Your task to perform on an android device: turn on airplane mode Image 0: 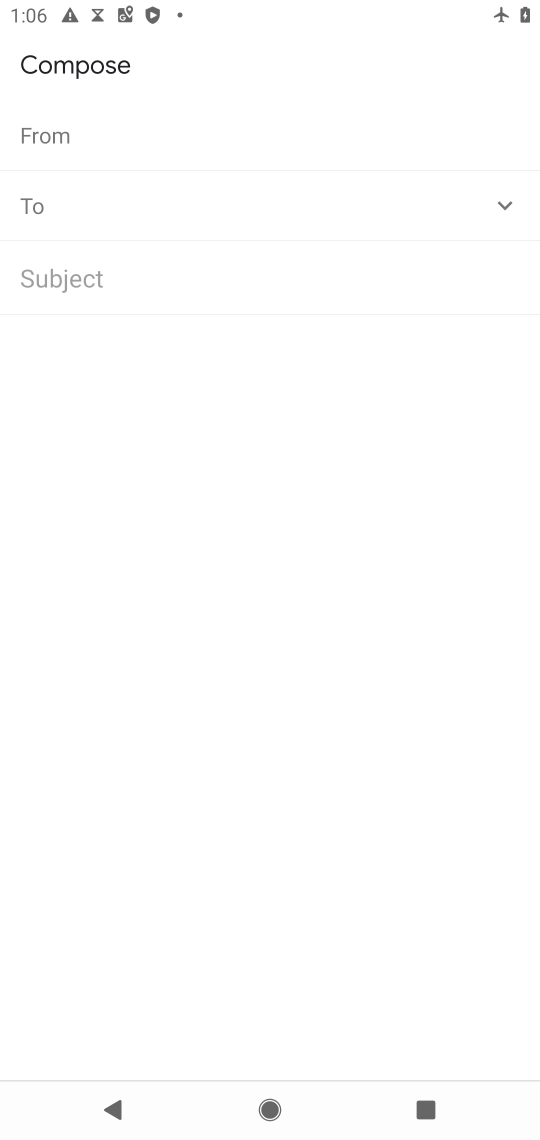
Step 0: press home button
Your task to perform on an android device: turn on airplane mode Image 1: 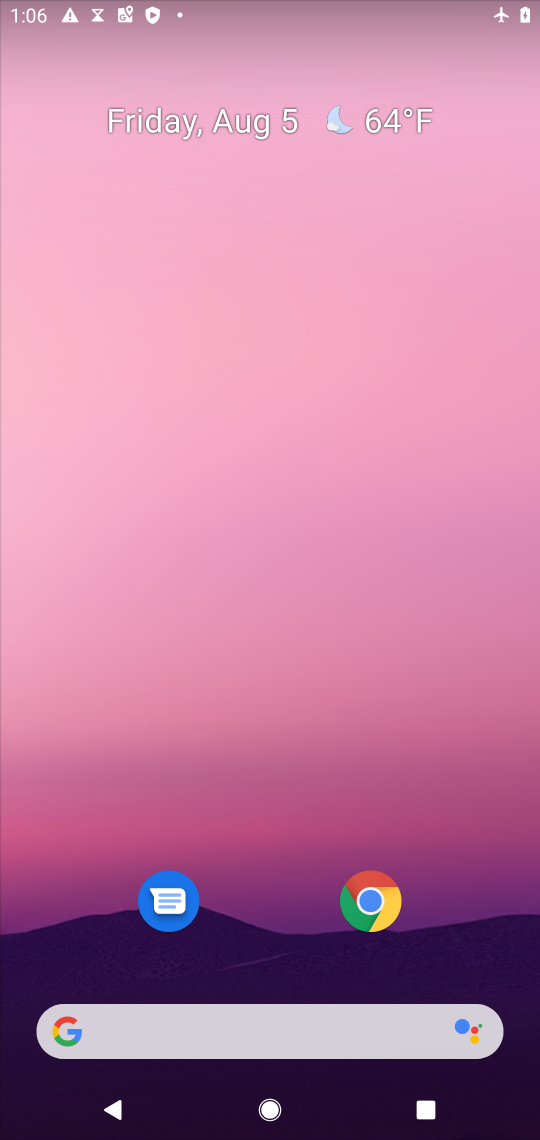
Step 1: drag from (278, 856) to (193, 19)
Your task to perform on an android device: turn on airplane mode Image 2: 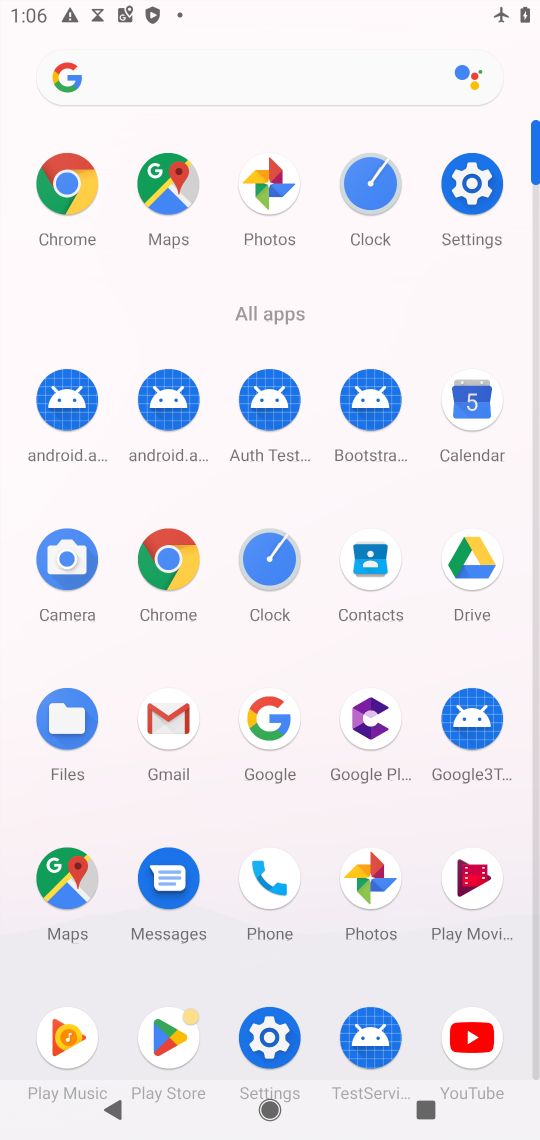
Step 2: click (468, 180)
Your task to perform on an android device: turn on airplane mode Image 3: 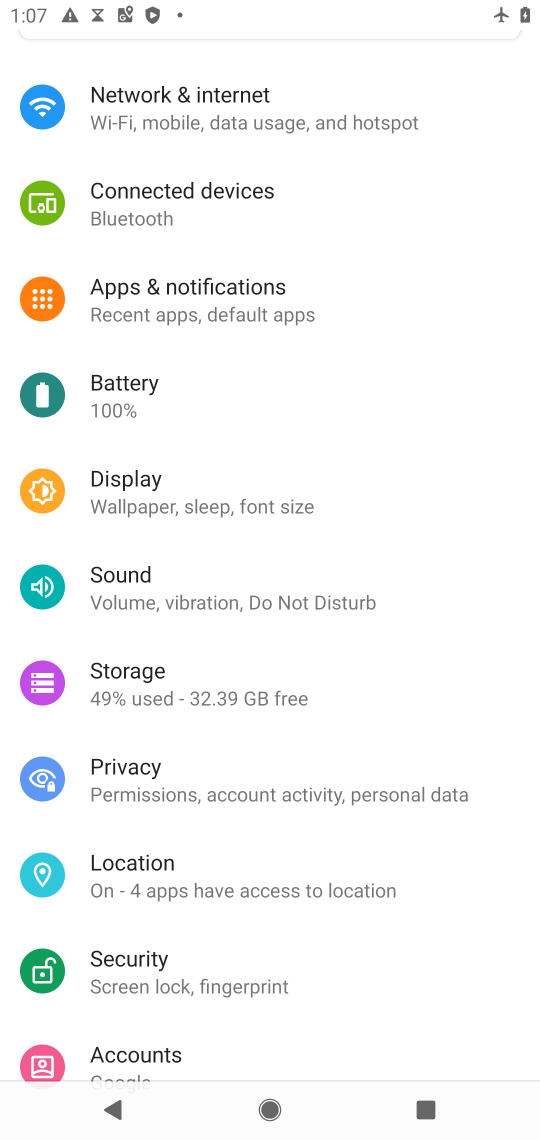
Step 3: click (249, 110)
Your task to perform on an android device: turn on airplane mode Image 4: 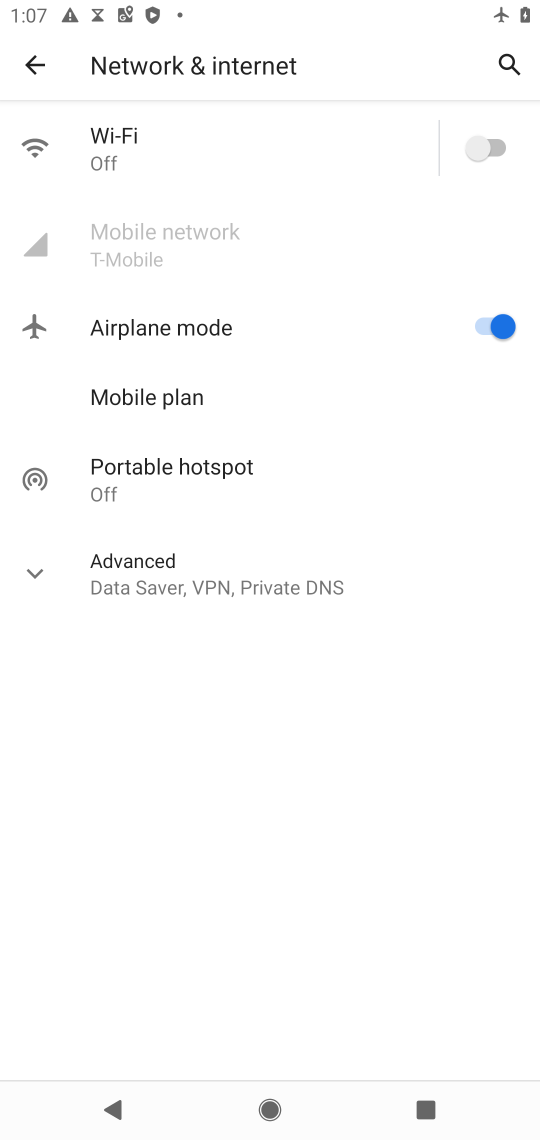
Step 4: task complete